Your task to perform on an android device: turn off notifications settings in the gmail app Image 0: 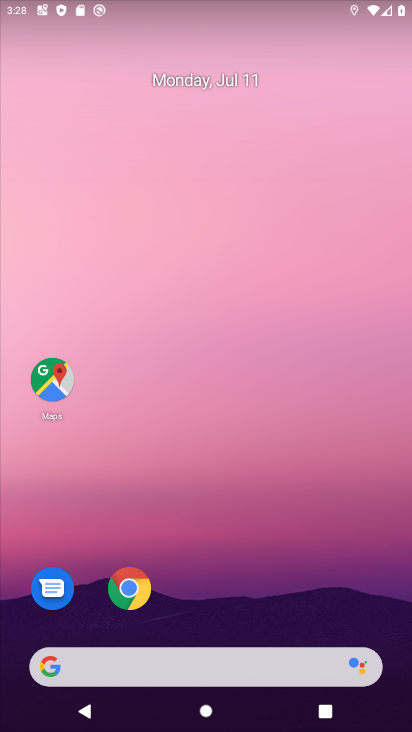
Step 0: drag from (207, 646) to (240, 363)
Your task to perform on an android device: turn off notifications settings in the gmail app Image 1: 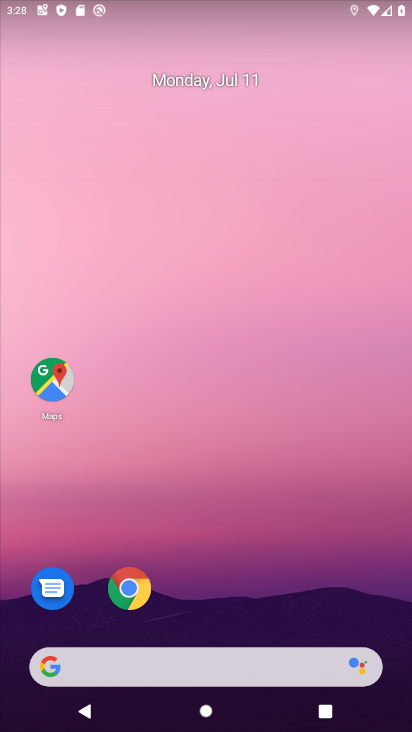
Step 1: drag from (281, 650) to (286, 107)
Your task to perform on an android device: turn off notifications settings in the gmail app Image 2: 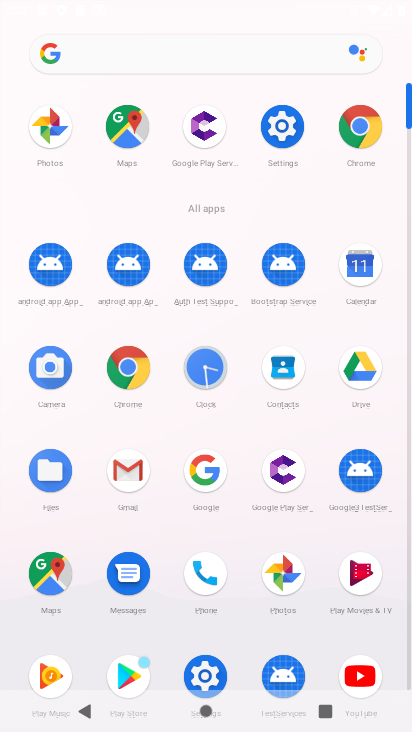
Step 2: click (131, 470)
Your task to perform on an android device: turn off notifications settings in the gmail app Image 3: 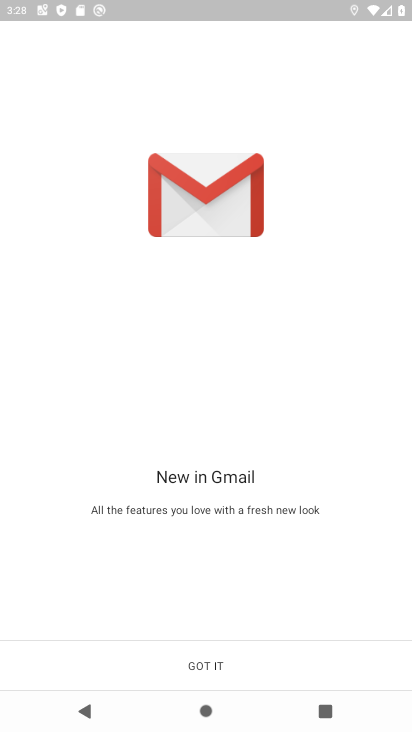
Step 3: click (209, 665)
Your task to perform on an android device: turn off notifications settings in the gmail app Image 4: 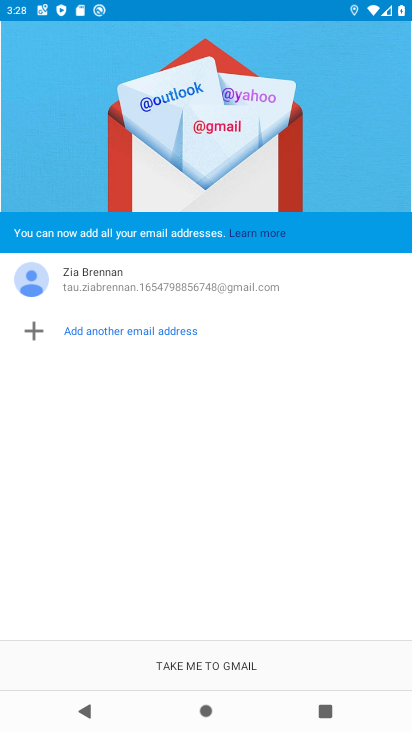
Step 4: click (205, 661)
Your task to perform on an android device: turn off notifications settings in the gmail app Image 5: 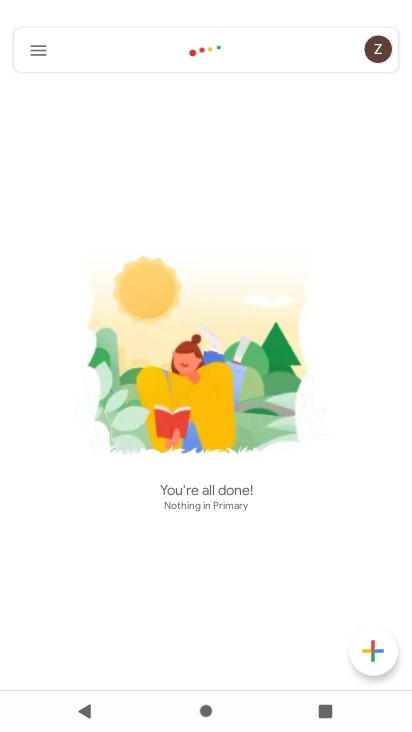
Step 5: click (40, 49)
Your task to perform on an android device: turn off notifications settings in the gmail app Image 6: 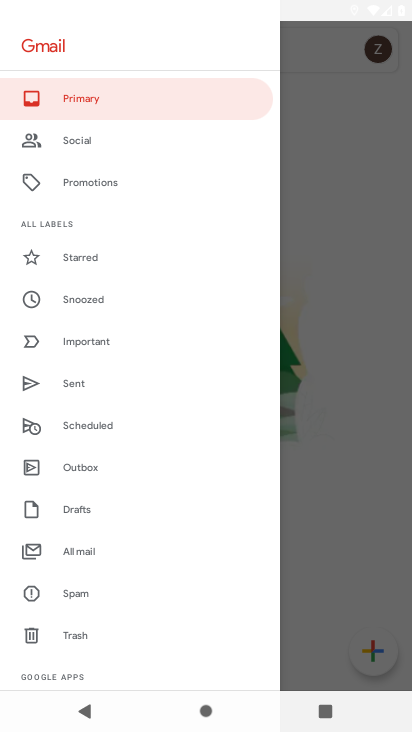
Step 6: drag from (88, 659) to (92, 294)
Your task to perform on an android device: turn off notifications settings in the gmail app Image 7: 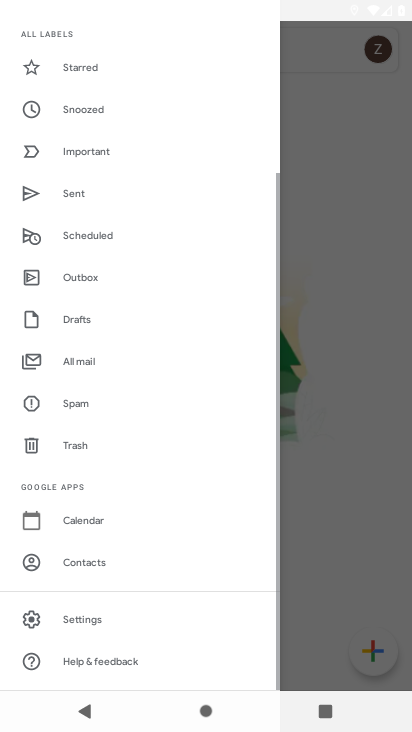
Step 7: click (88, 622)
Your task to perform on an android device: turn off notifications settings in the gmail app Image 8: 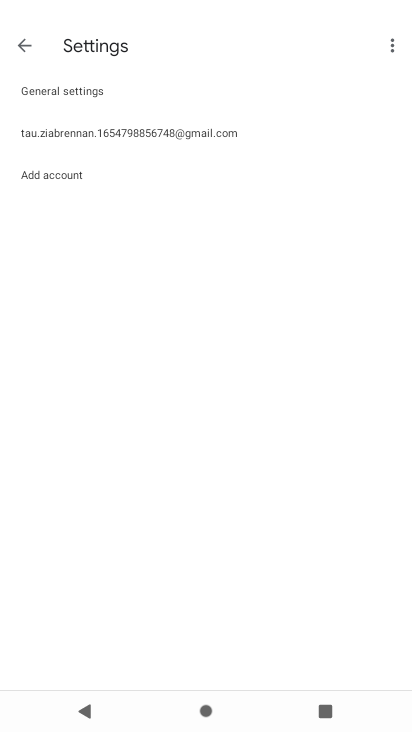
Step 8: click (114, 133)
Your task to perform on an android device: turn off notifications settings in the gmail app Image 9: 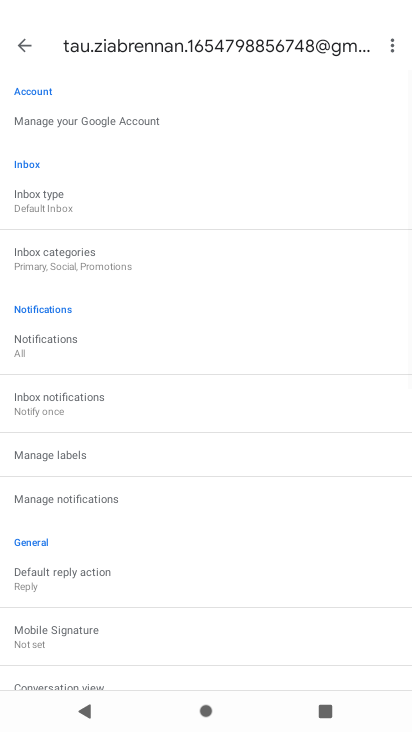
Step 9: click (92, 507)
Your task to perform on an android device: turn off notifications settings in the gmail app Image 10: 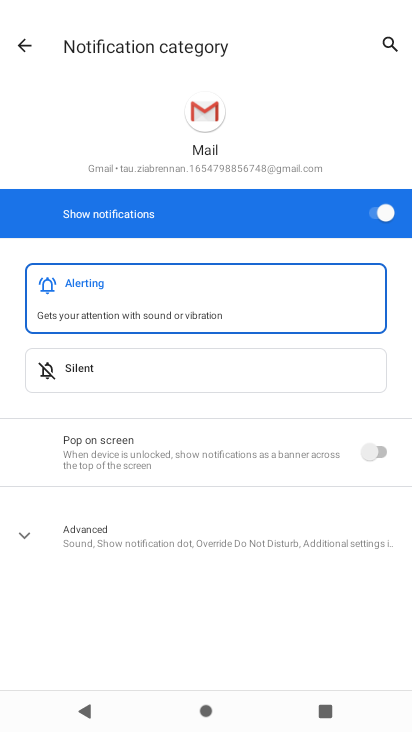
Step 10: click (373, 210)
Your task to perform on an android device: turn off notifications settings in the gmail app Image 11: 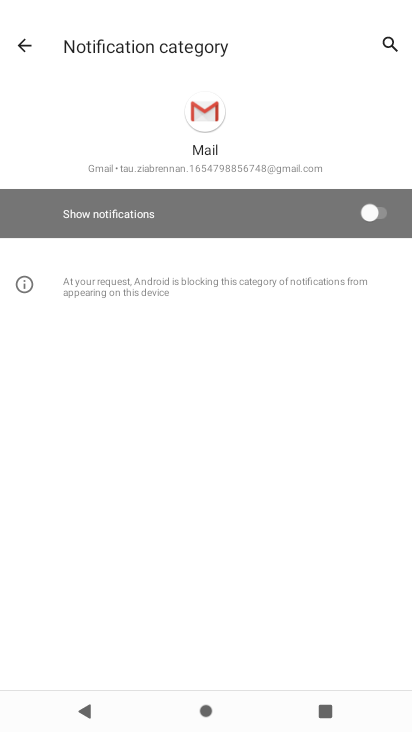
Step 11: task complete